Your task to perform on an android device: Check the news Image 0: 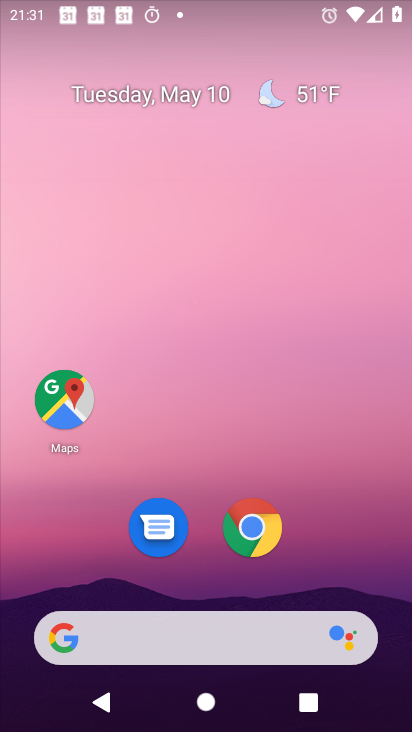
Step 0: drag from (59, 238) to (402, 396)
Your task to perform on an android device: Check the news Image 1: 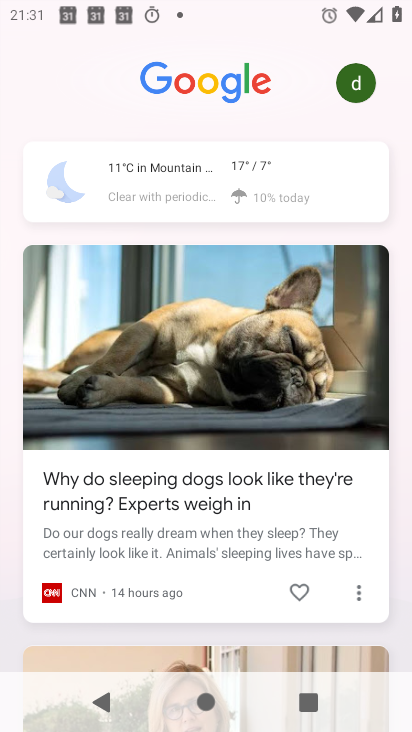
Step 1: task complete